Your task to perform on an android device: Open settings on Google Maps Image 0: 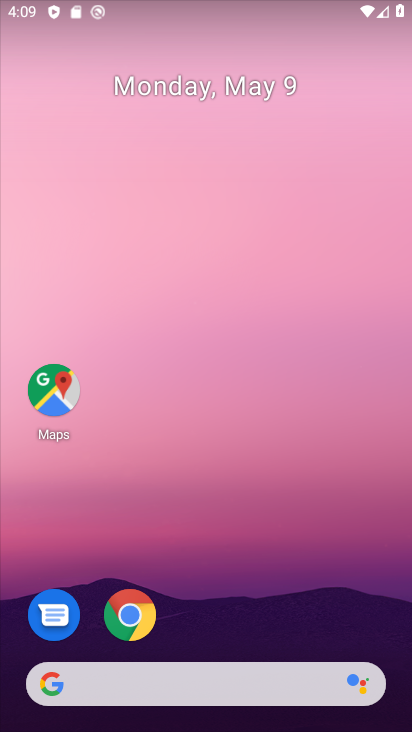
Step 0: click (53, 384)
Your task to perform on an android device: Open settings on Google Maps Image 1: 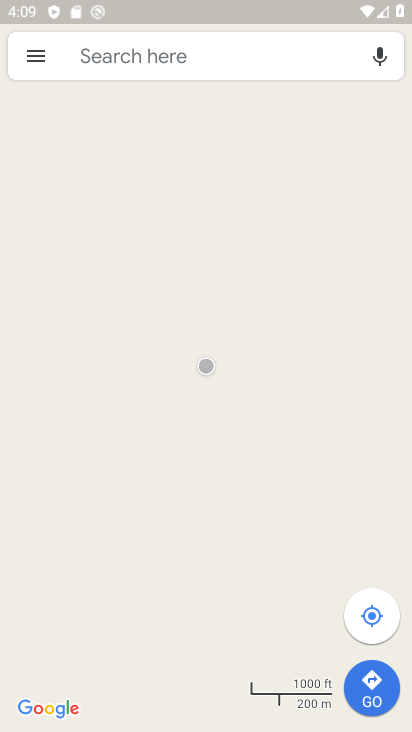
Step 1: click (44, 51)
Your task to perform on an android device: Open settings on Google Maps Image 2: 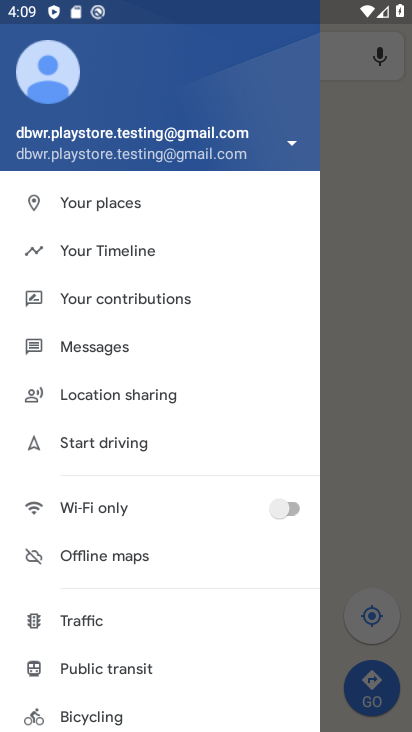
Step 2: drag from (130, 682) to (208, 459)
Your task to perform on an android device: Open settings on Google Maps Image 3: 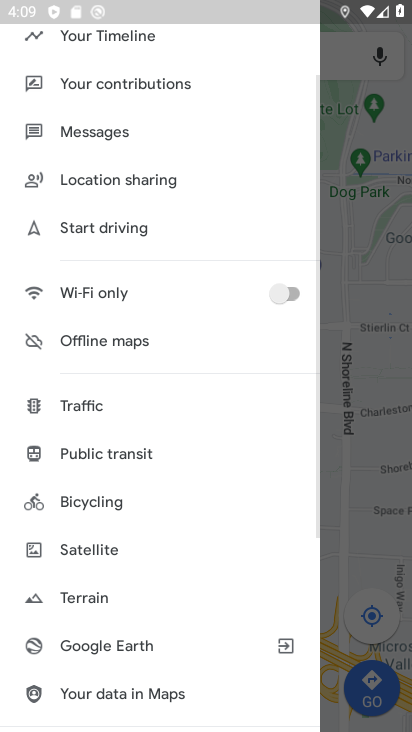
Step 3: drag from (124, 618) to (201, 215)
Your task to perform on an android device: Open settings on Google Maps Image 4: 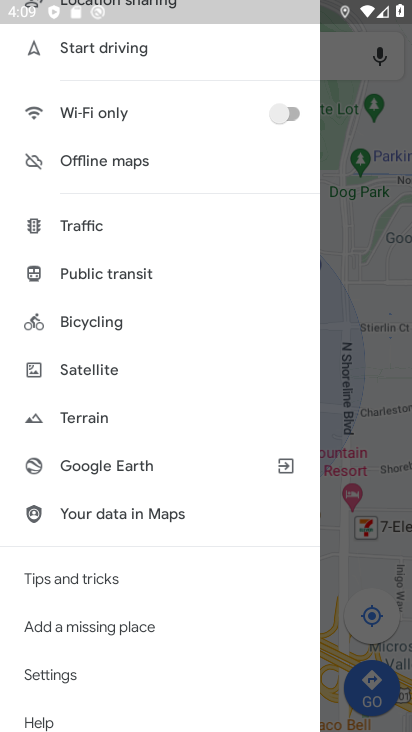
Step 4: click (130, 680)
Your task to perform on an android device: Open settings on Google Maps Image 5: 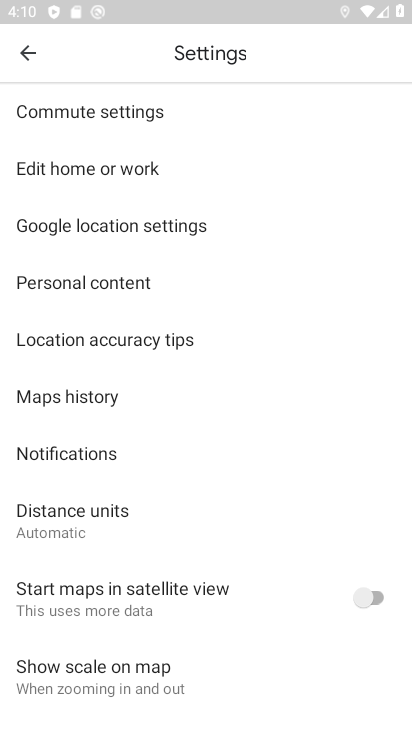
Step 5: task complete